Your task to perform on an android device: Open CNN.com Image 0: 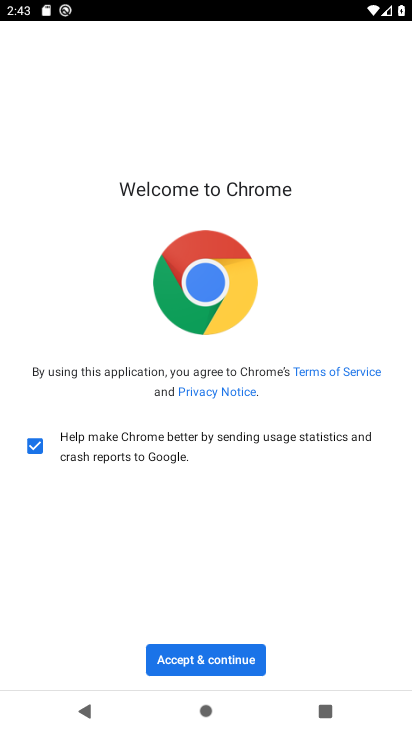
Step 0: click (198, 647)
Your task to perform on an android device: Open CNN.com Image 1: 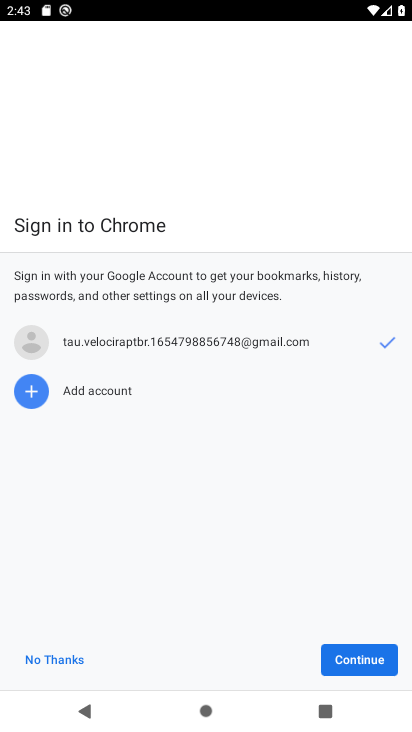
Step 1: click (350, 664)
Your task to perform on an android device: Open CNN.com Image 2: 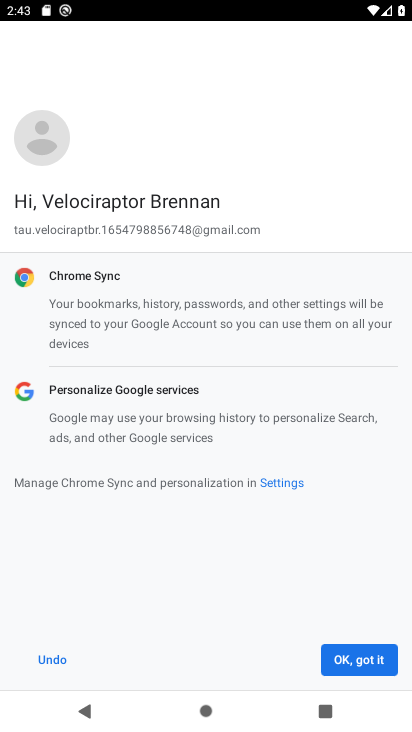
Step 2: click (363, 653)
Your task to perform on an android device: Open CNN.com Image 3: 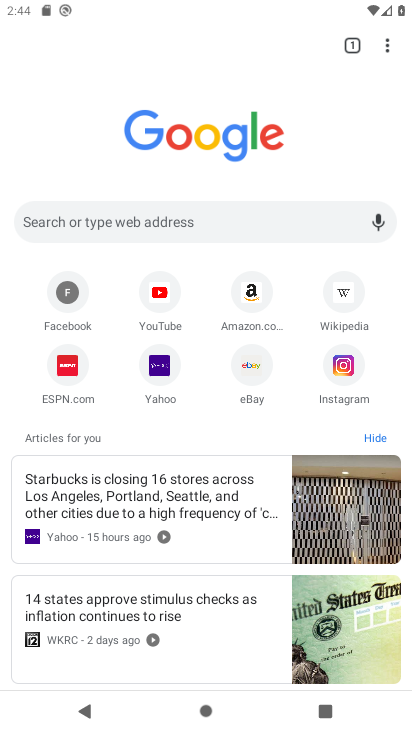
Step 3: click (201, 230)
Your task to perform on an android device: Open CNN.com Image 4: 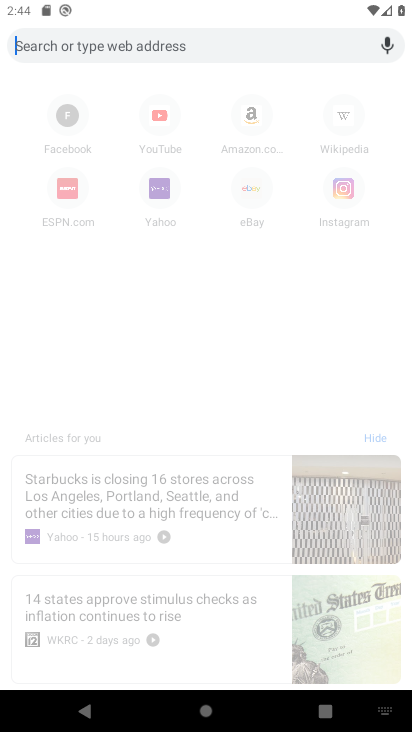
Step 4: type "CNN.com"
Your task to perform on an android device: Open CNN.com Image 5: 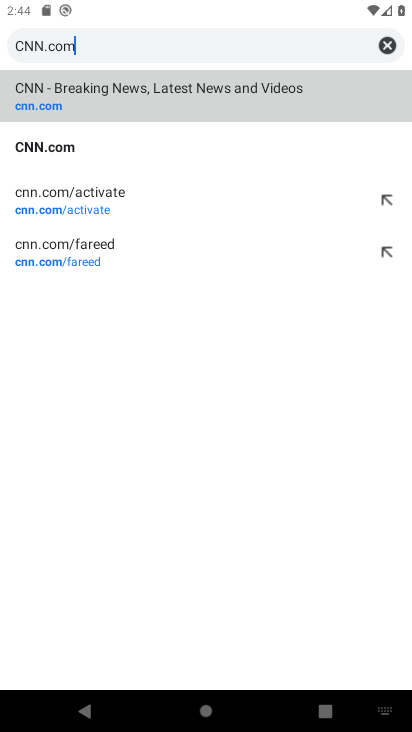
Step 5: type ""
Your task to perform on an android device: Open CNN.com Image 6: 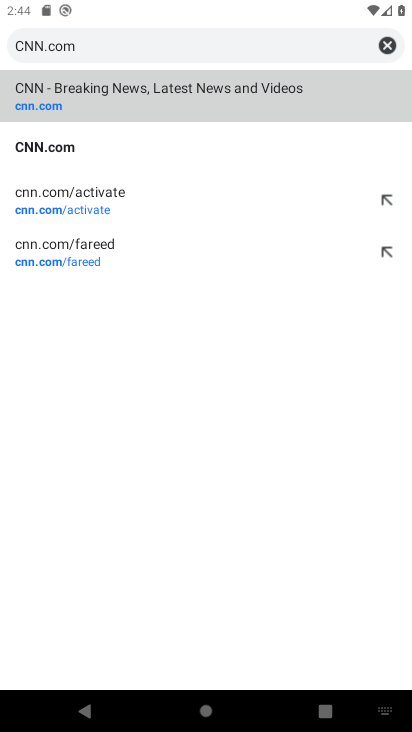
Step 6: click (104, 108)
Your task to perform on an android device: Open CNN.com Image 7: 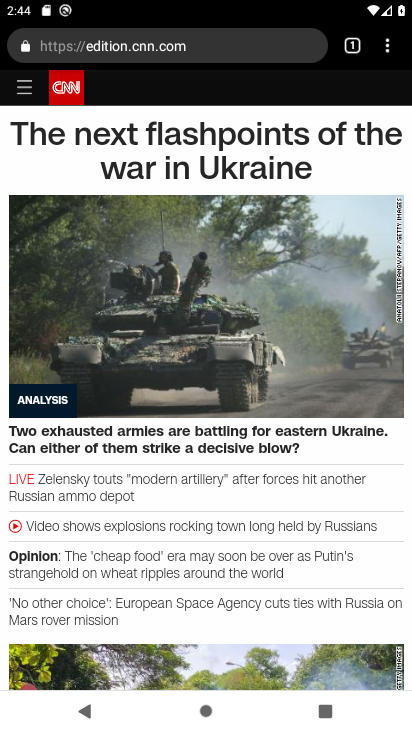
Step 7: task complete